Your task to perform on an android device: Go to privacy settings Image 0: 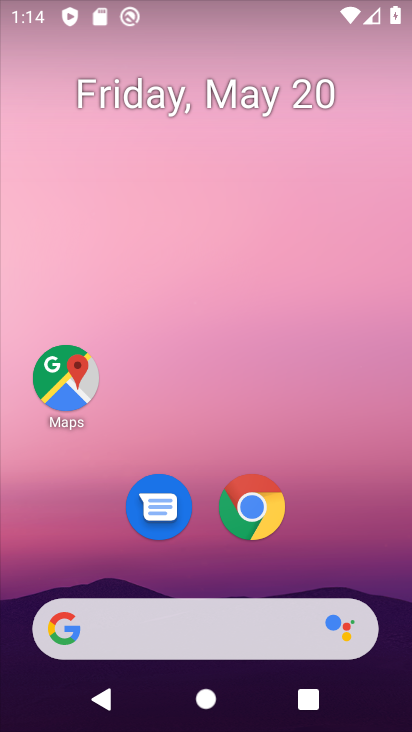
Step 0: drag from (217, 720) to (211, 213)
Your task to perform on an android device: Go to privacy settings Image 1: 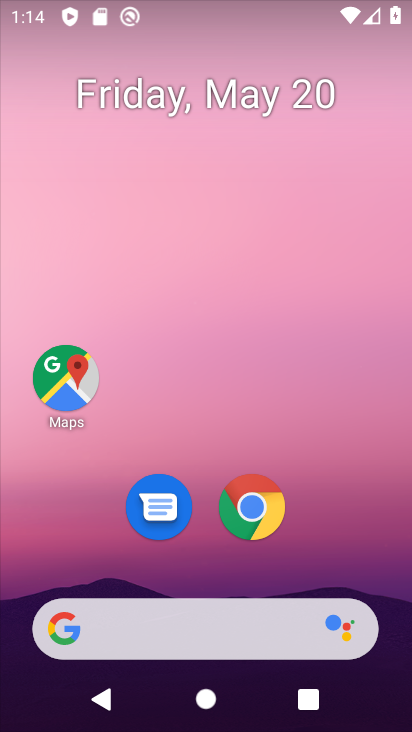
Step 1: drag from (235, 719) to (240, 100)
Your task to perform on an android device: Go to privacy settings Image 2: 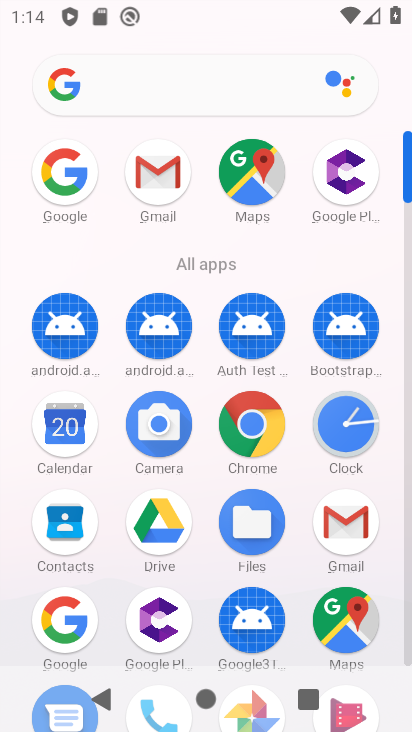
Step 2: drag from (205, 651) to (205, 312)
Your task to perform on an android device: Go to privacy settings Image 3: 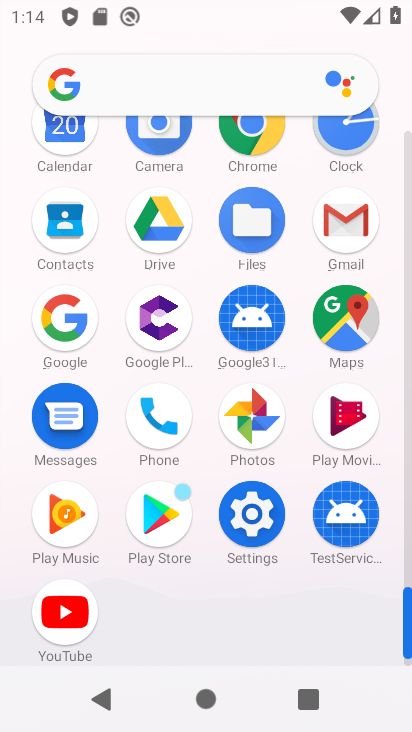
Step 3: click (247, 527)
Your task to perform on an android device: Go to privacy settings Image 4: 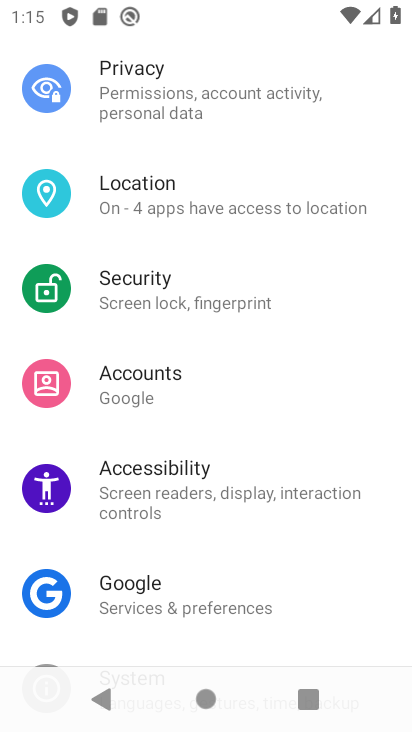
Step 4: drag from (212, 185) to (221, 433)
Your task to perform on an android device: Go to privacy settings Image 5: 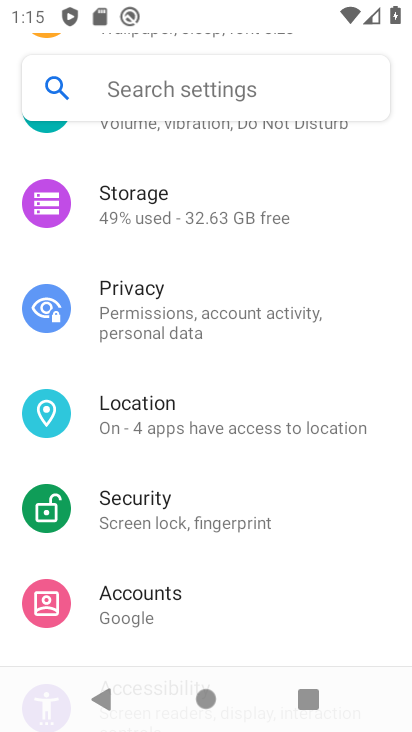
Step 5: click (176, 314)
Your task to perform on an android device: Go to privacy settings Image 6: 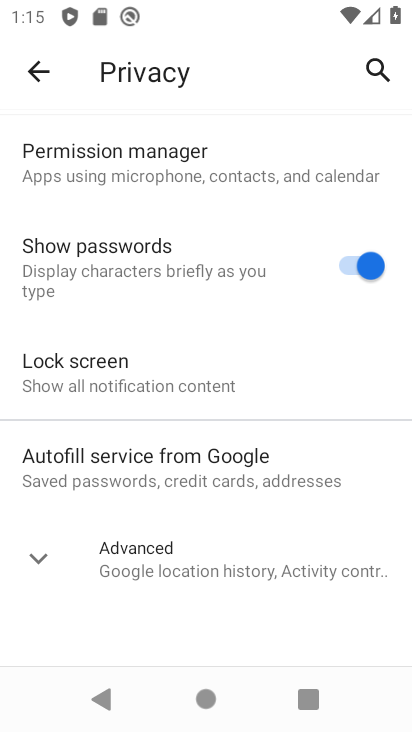
Step 6: task complete